Your task to perform on an android device: change the clock display to analog Image 0: 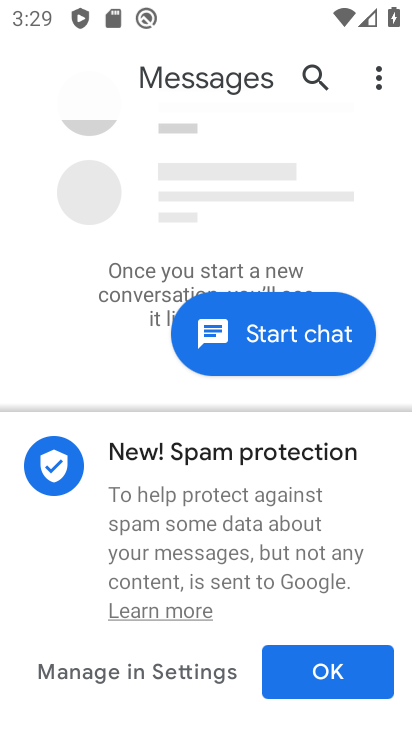
Step 0: press home button
Your task to perform on an android device: change the clock display to analog Image 1: 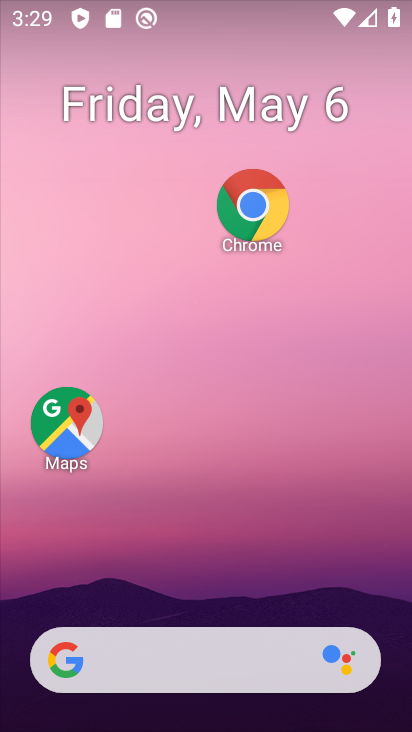
Step 1: drag from (204, 615) to (138, 0)
Your task to perform on an android device: change the clock display to analog Image 2: 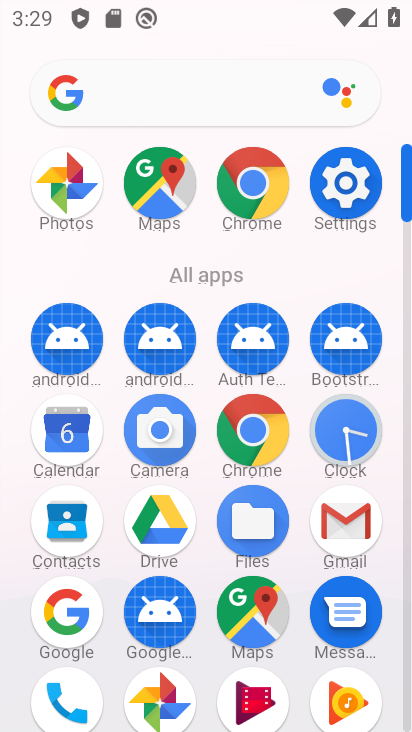
Step 2: click (339, 438)
Your task to perform on an android device: change the clock display to analog Image 3: 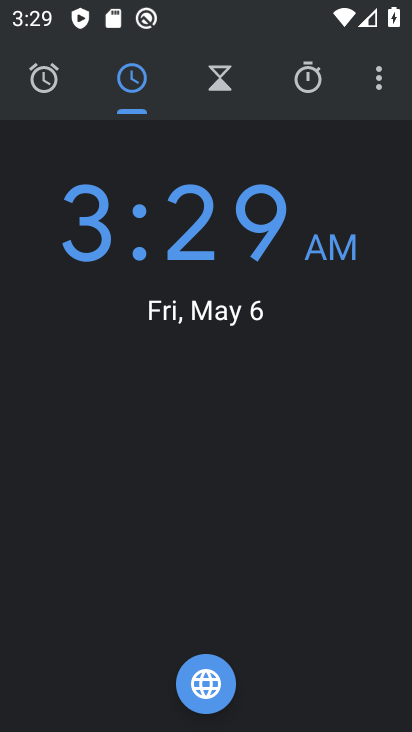
Step 3: click (382, 91)
Your task to perform on an android device: change the clock display to analog Image 4: 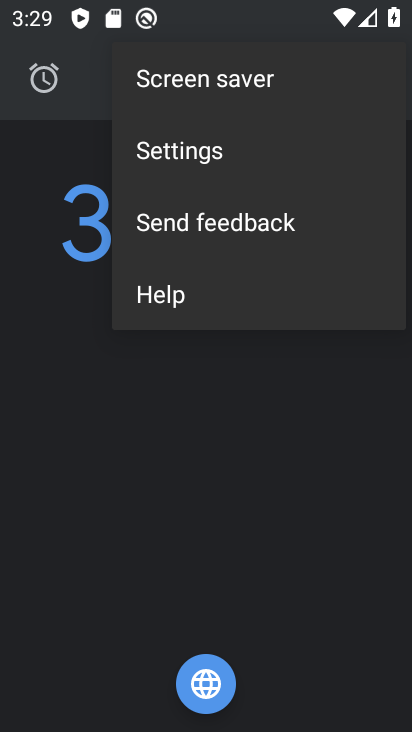
Step 4: click (189, 137)
Your task to perform on an android device: change the clock display to analog Image 5: 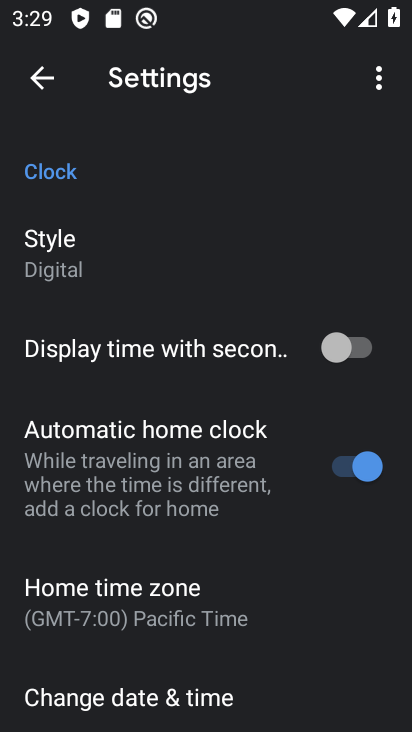
Step 5: click (60, 263)
Your task to perform on an android device: change the clock display to analog Image 6: 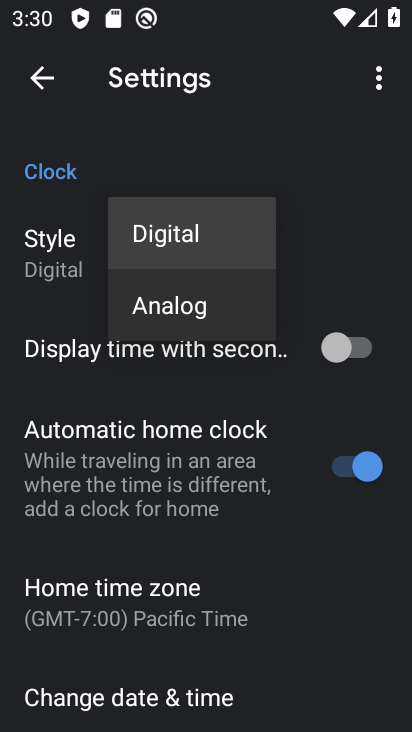
Step 6: click (146, 309)
Your task to perform on an android device: change the clock display to analog Image 7: 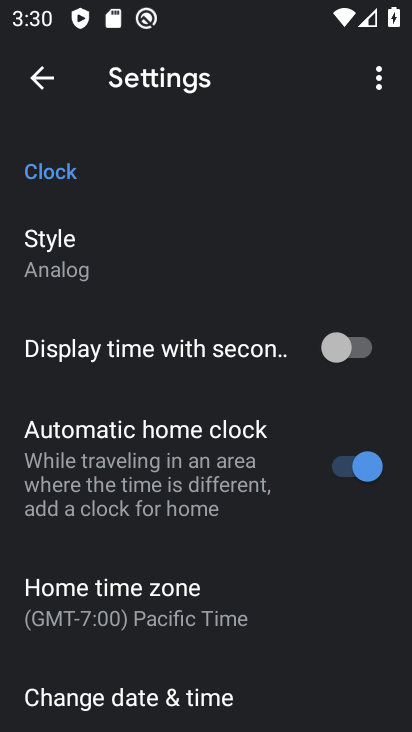
Step 7: task complete